Your task to perform on an android device: toggle data saver in the chrome app Image 0: 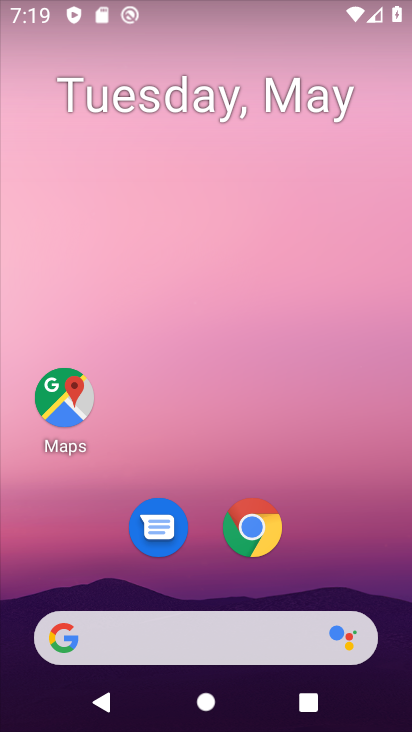
Step 0: click (254, 528)
Your task to perform on an android device: toggle data saver in the chrome app Image 1: 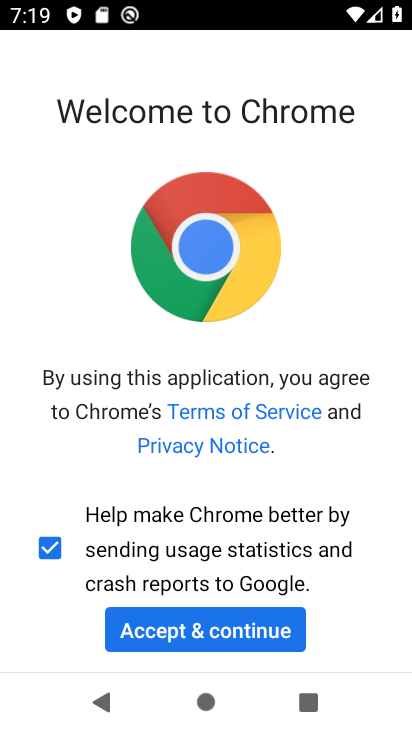
Step 1: click (205, 627)
Your task to perform on an android device: toggle data saver in the chrome app Image 2: 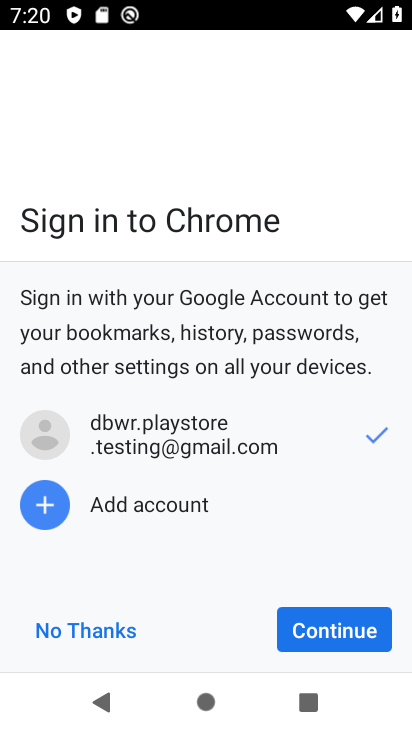
Step 2: click (339, 636)
Your task to perform on an android device: toggle data saver in the chrome app Image 3: 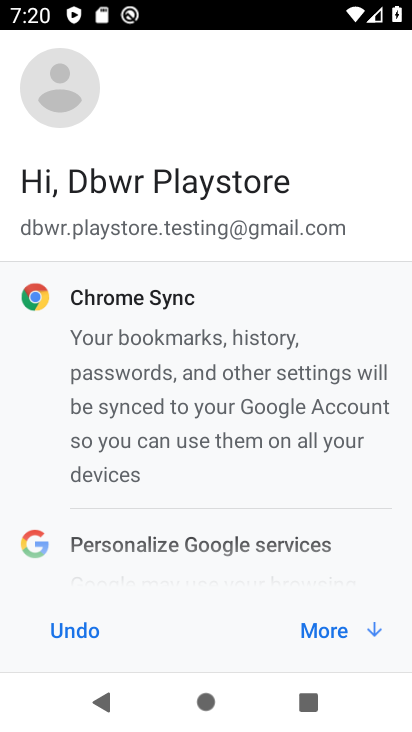
Step 3: click (330, 636)
Your task to perform on an android device: toggle data saver in the chrome app Image 4: 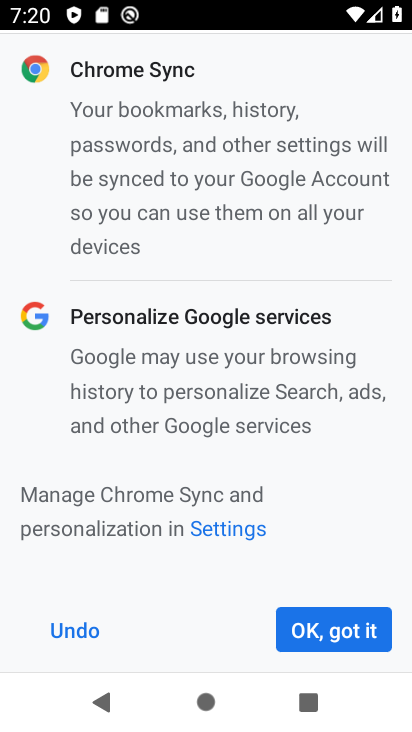
Step 4: click (330, 636)
Your task to perform on an android device: toggle data saver in the chrome app Image 5: 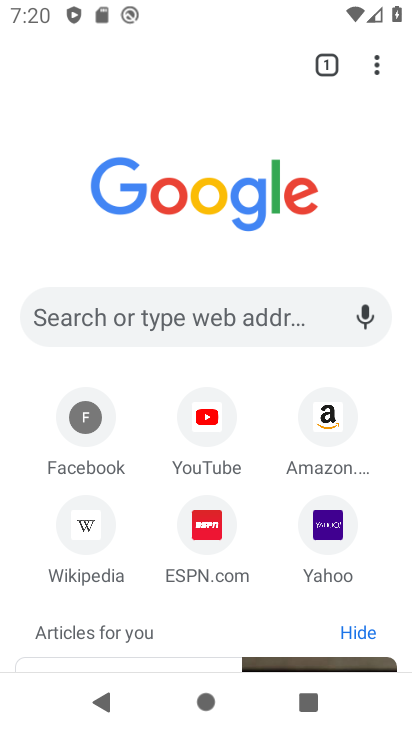
Step 5: click (378, 66)
Your task to perform on an android device: toggle data saver in the chrome app Image 6: 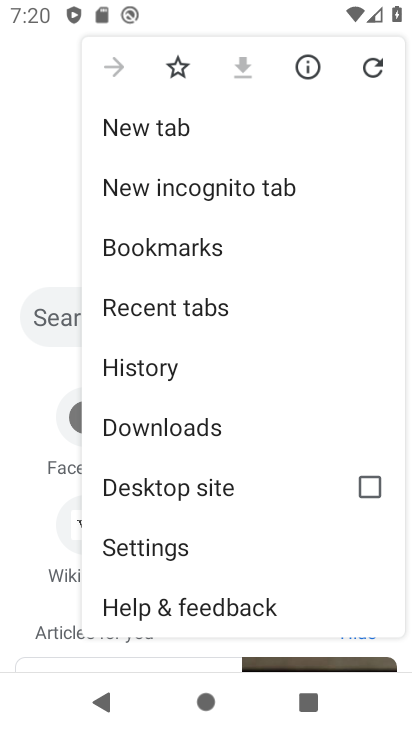
Step 6: click (156, 546)
Your task to perform on an android device: toggle data saver in the chrome app Image 7: 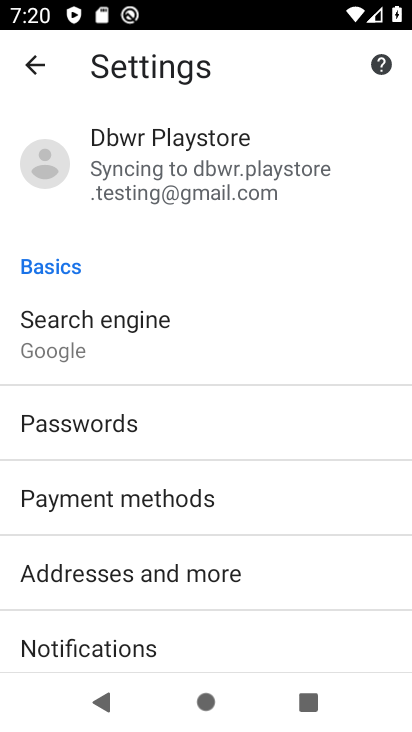
Step 7: drag from (137, 613) to (276, 309)
Your task to perform on an android device: toggle data saver in the chrome app Image 8: 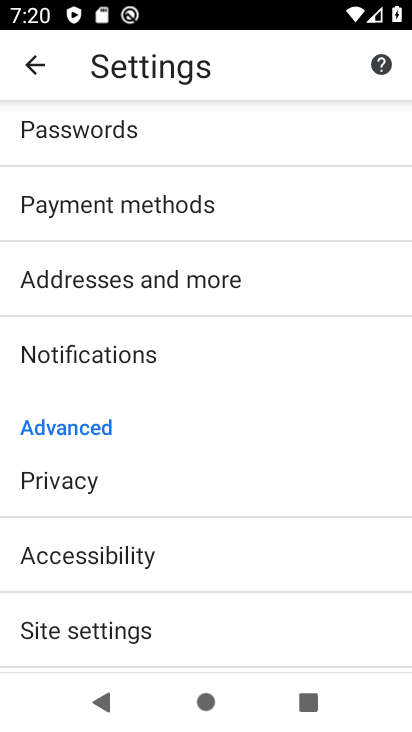
Step 8: drag from (136, 476) to (279, 270)
Your task to perform on an android device: toggle data saver in the chrome app Image 9: 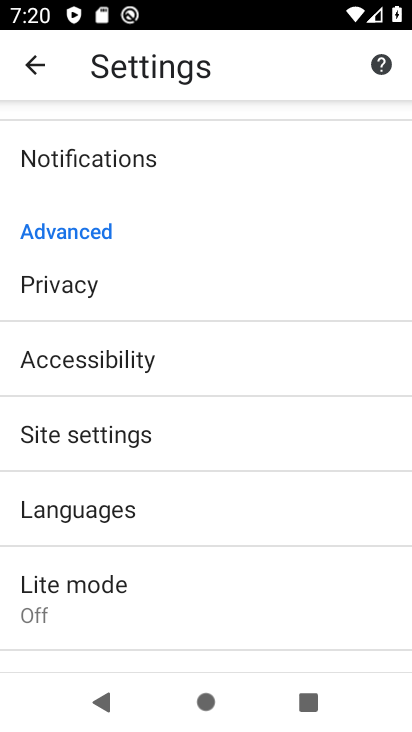
Step 9: click (82, 581)
Your task to perform on an android device: toggle data saver in the chrome app Image 10: 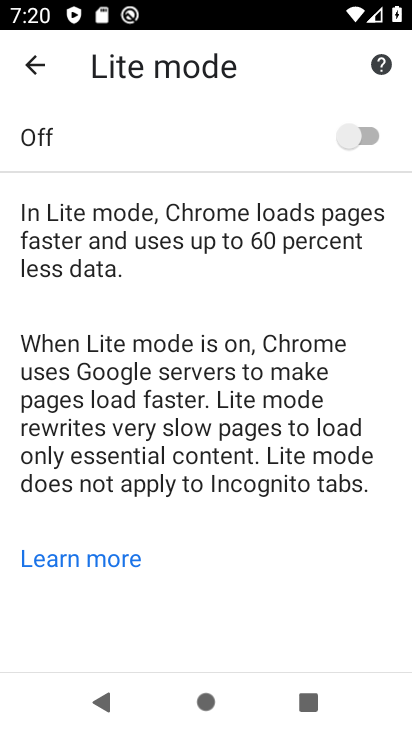
Step 10: click (365, 135)
Your task to perform on an android device: toggle data saver in the chrome app Image 11: 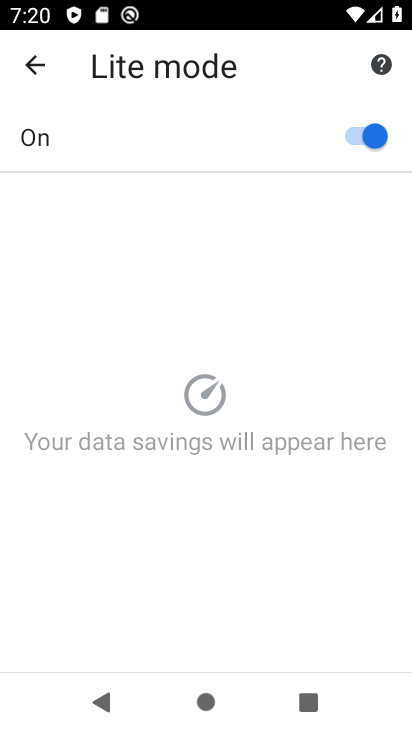
Step 11: task complete